Your task to perform on an android device: See recent photos Image 0: 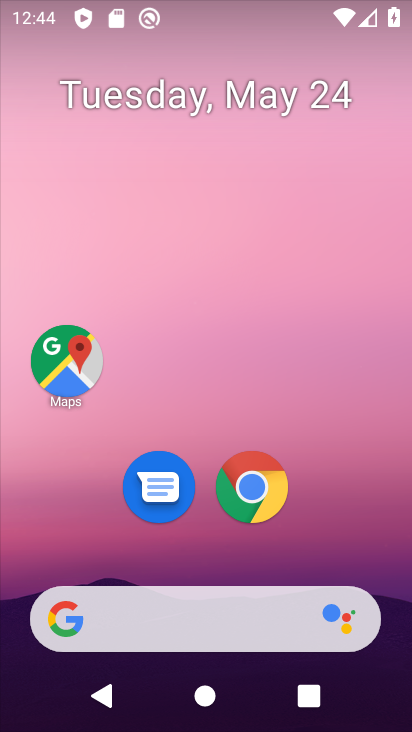
Step 0: drag from (248, 710) to (244, 54)
Your task to perform on an android device: See recent photos Image 1: 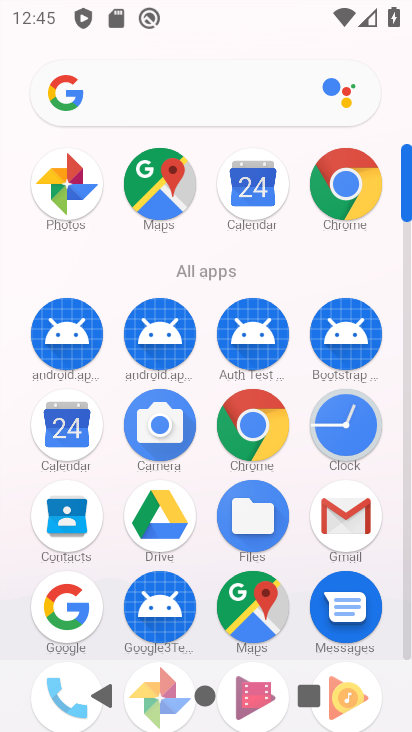
Step 1: click (66, 188)
Your task to perform on an android device: See recent photos Image 2: 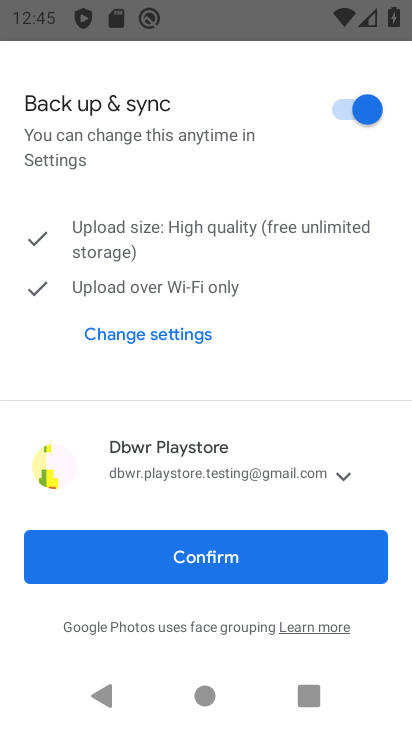
Step 2: click (230, 562)
Your task to perform on an android device: See recent photos Image 3: 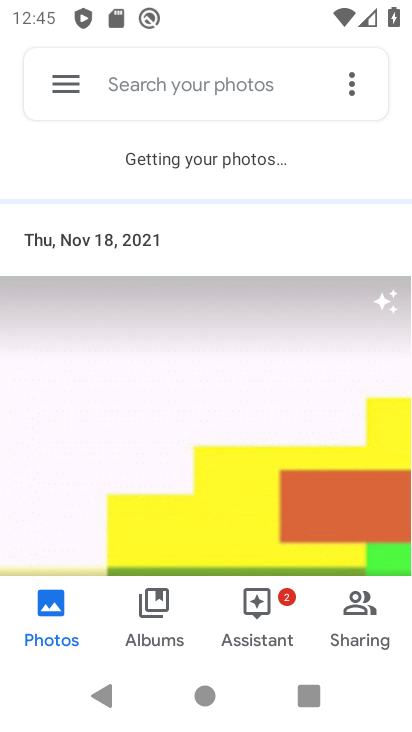
Step 3: drag from (220, 486) to (224, 254)
Your task to perform on an android device: See recent photos Image 4: 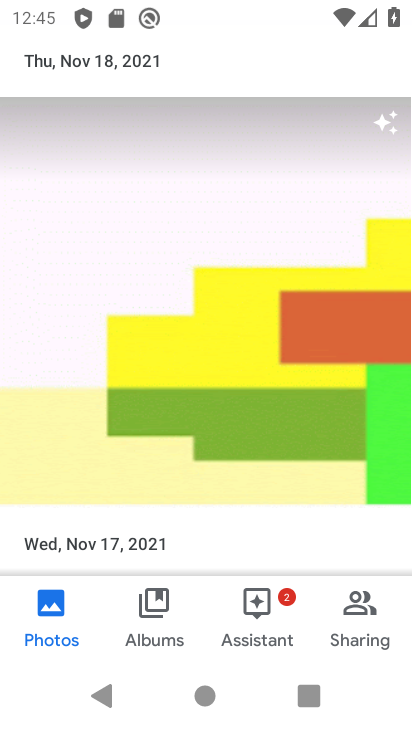
Step 4: drag from (211, 521) to (220, 256)
Your task to perform on an android device: See recent photos Image 5: 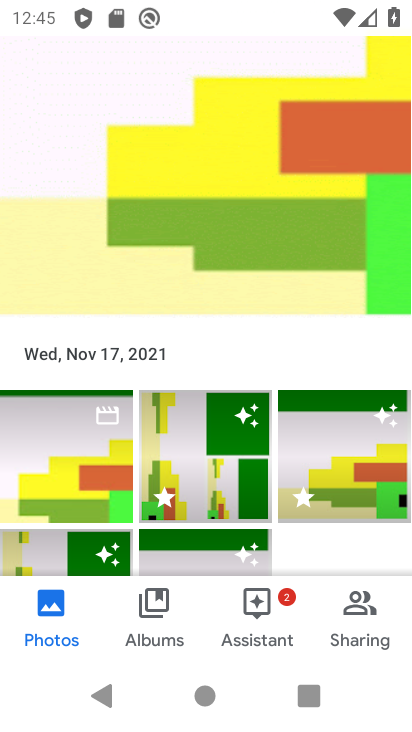
Step 5: click (204, 469)
Your task to perform on an android device: See recent photos Image 6: 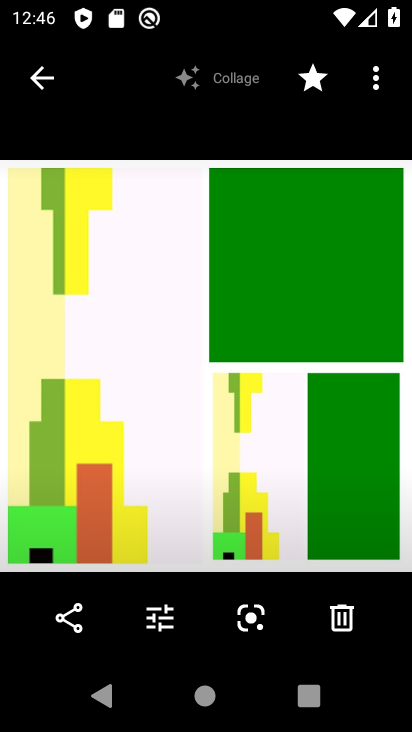
Step 6: task complete